Your task to perform on an android device: turn off priority inbox in the gmail app Image 0: 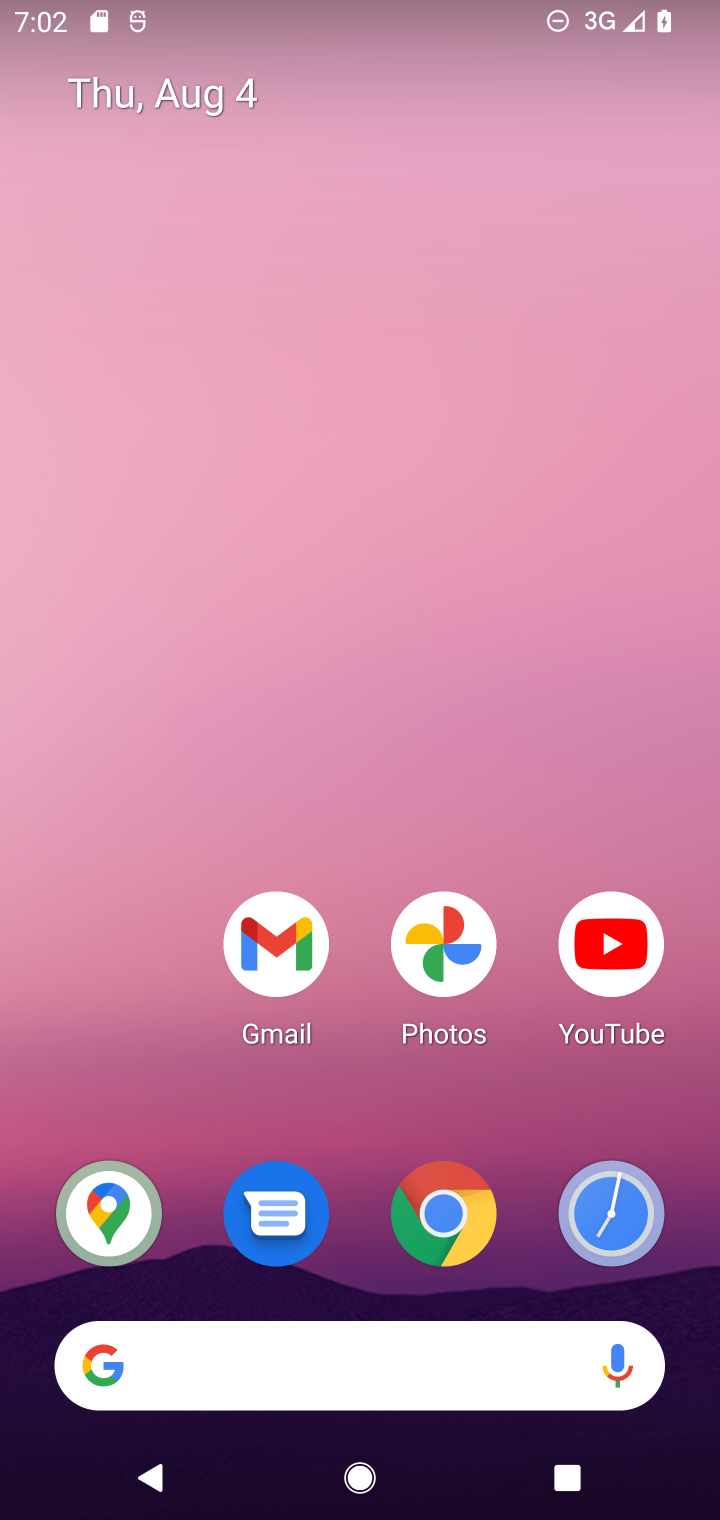
Step 0: press home button
Your task to perform on an android device: turn off priority inbox in the gmail app Image 1: 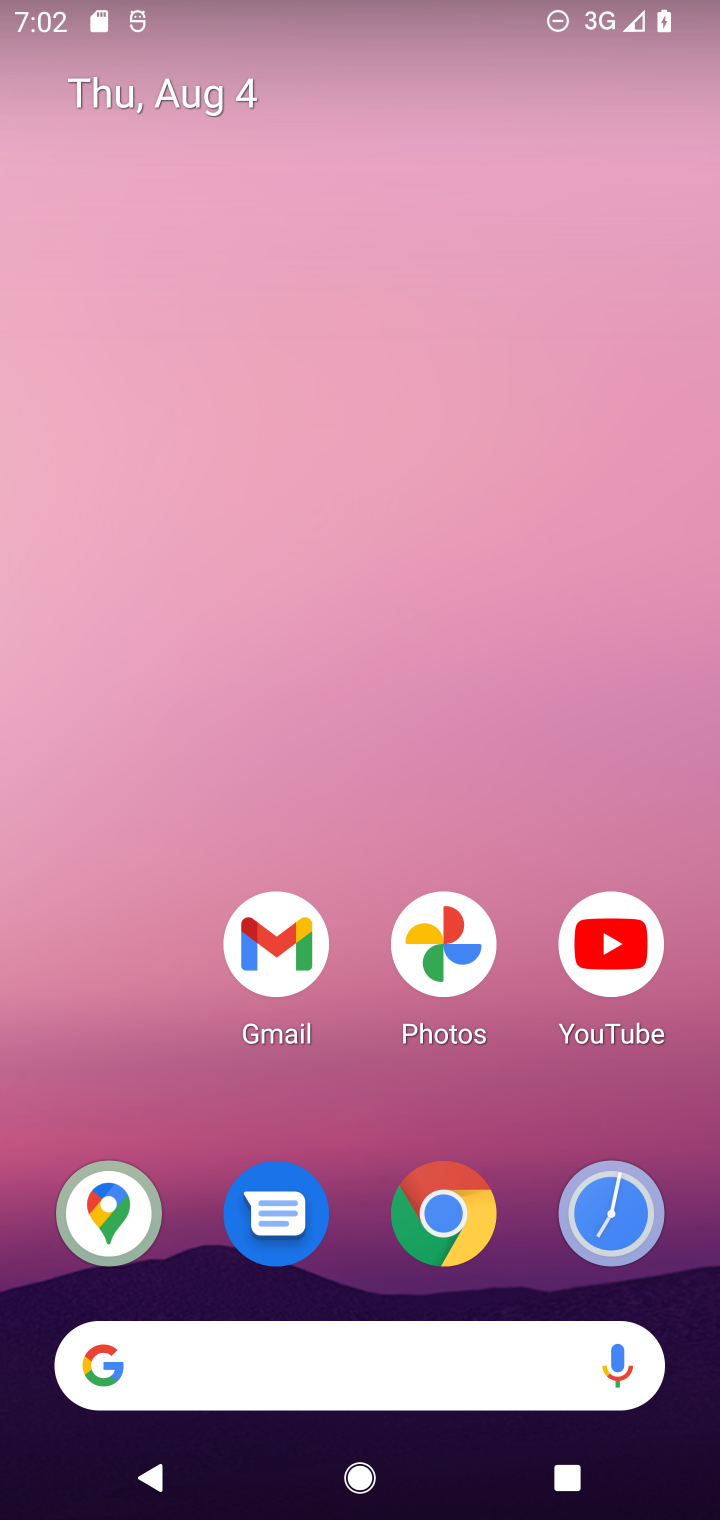
Step 1: drag from (164, 1124) to (177, 369)
Your task to perform on an android device: turn off priority inbox in the gmail app Image 2: 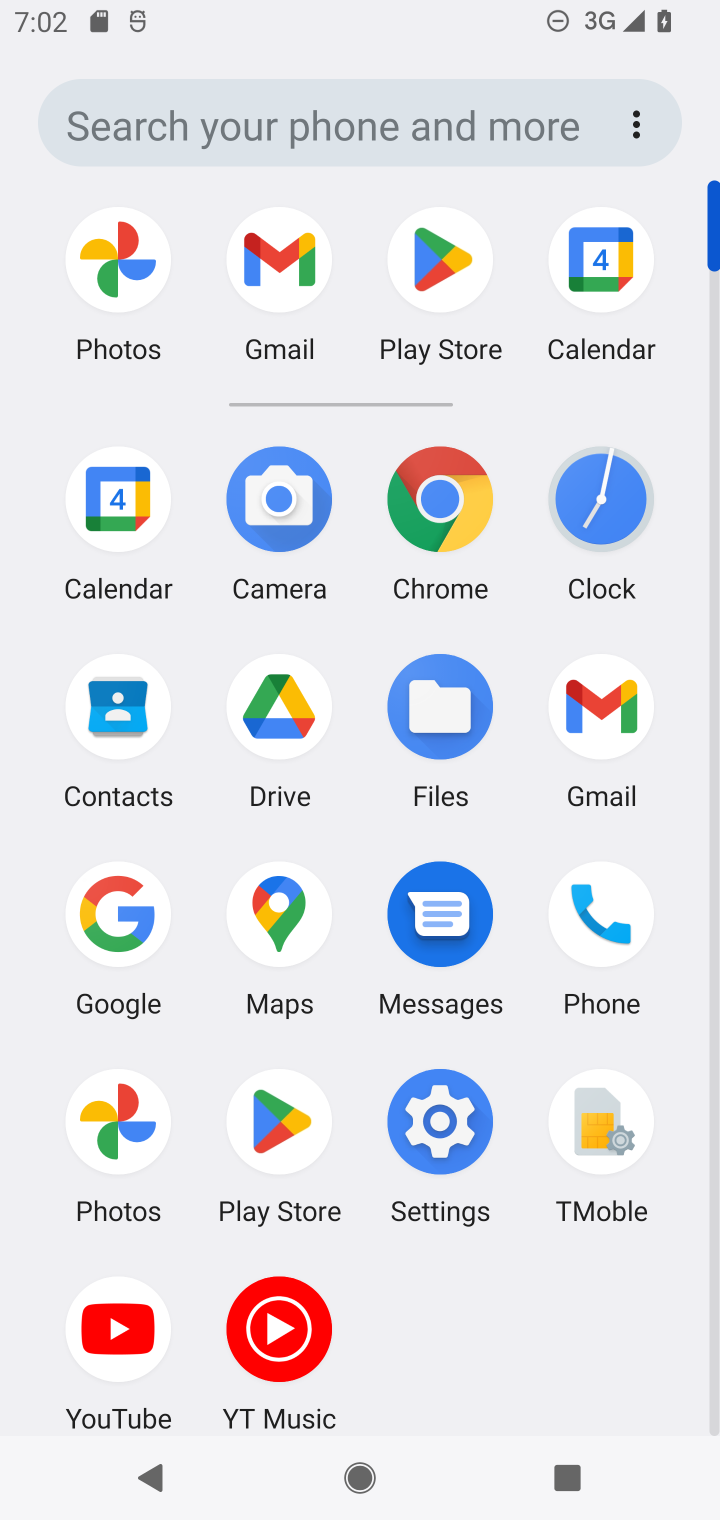
Step 2: click (626, 716)
Your task to perform on an android device: turn off priority inbox in the gmail app Image 3: 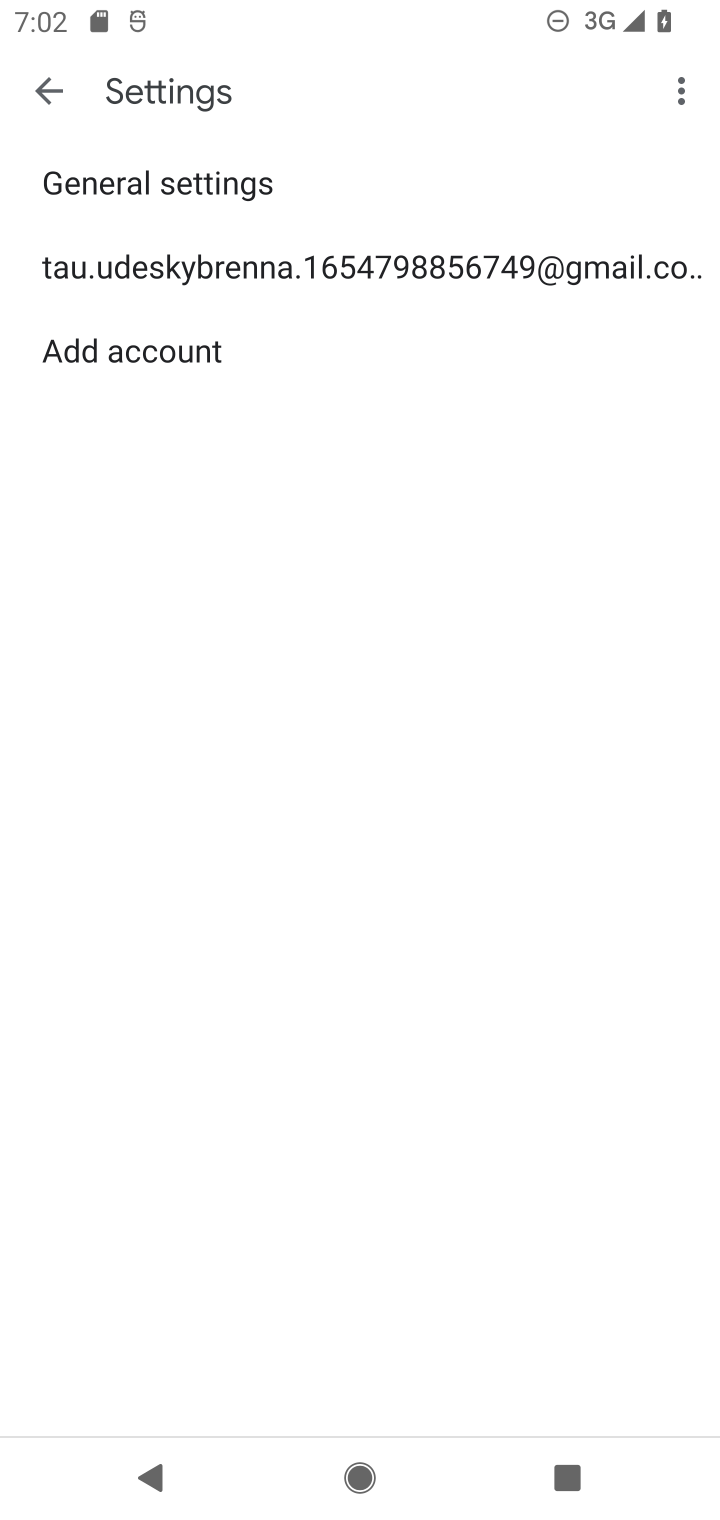
Step 3: click (469, 262)
Your task to perform on an android device: turn off priority inbox in the gmail app Image 4: 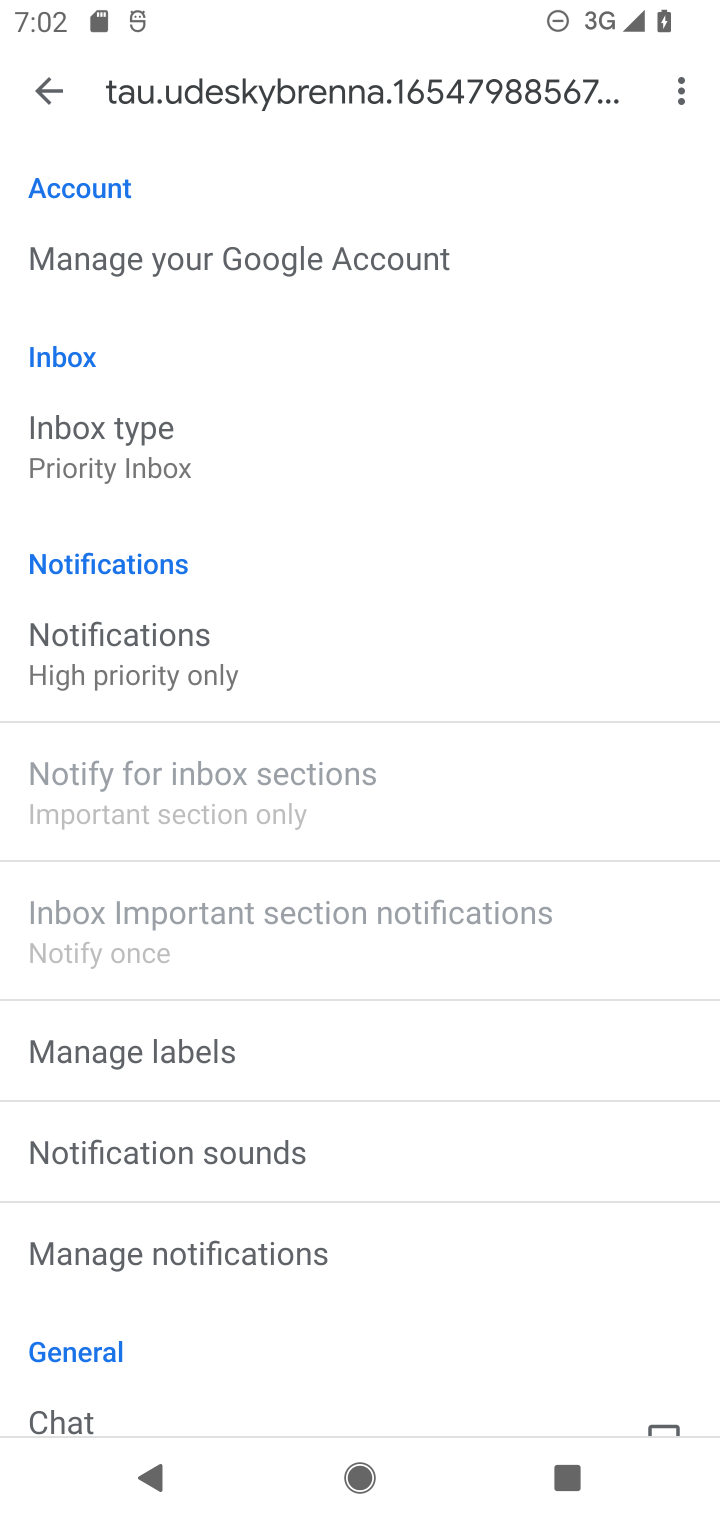
Step 4: drag from (570, 1053) to (561, 745)
Your task to perform on an android device: turn off priority inbox in the gmail app Image 5: 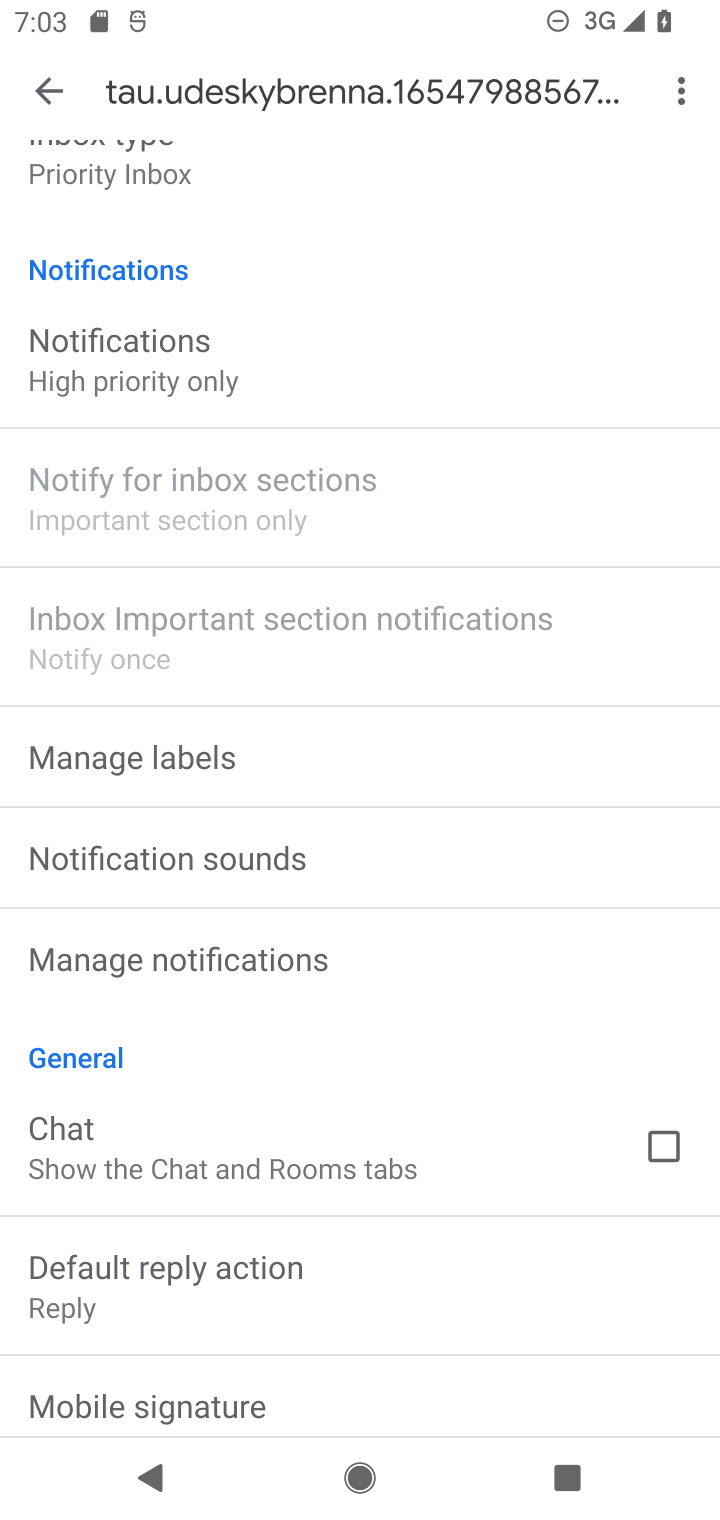
Step 5: drag from (515, 1104) to (509, 824)
Your task to perform on an android device: turn off priority inbox in the gmail app Image 6: 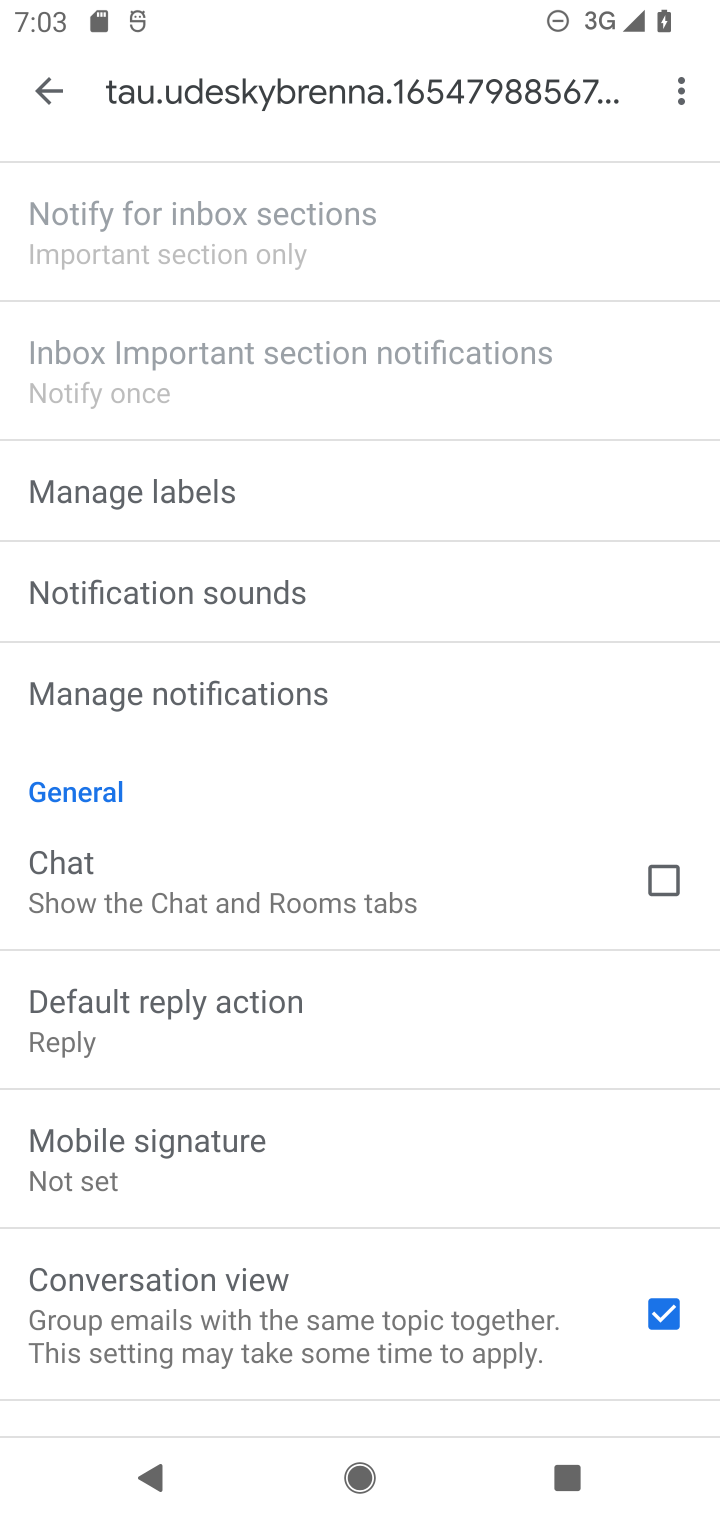
Step 6: drag from (485, 1149) to (501, 835)
Your task to perform on an android device: turn off priority inbox in the gmail app Image 7: 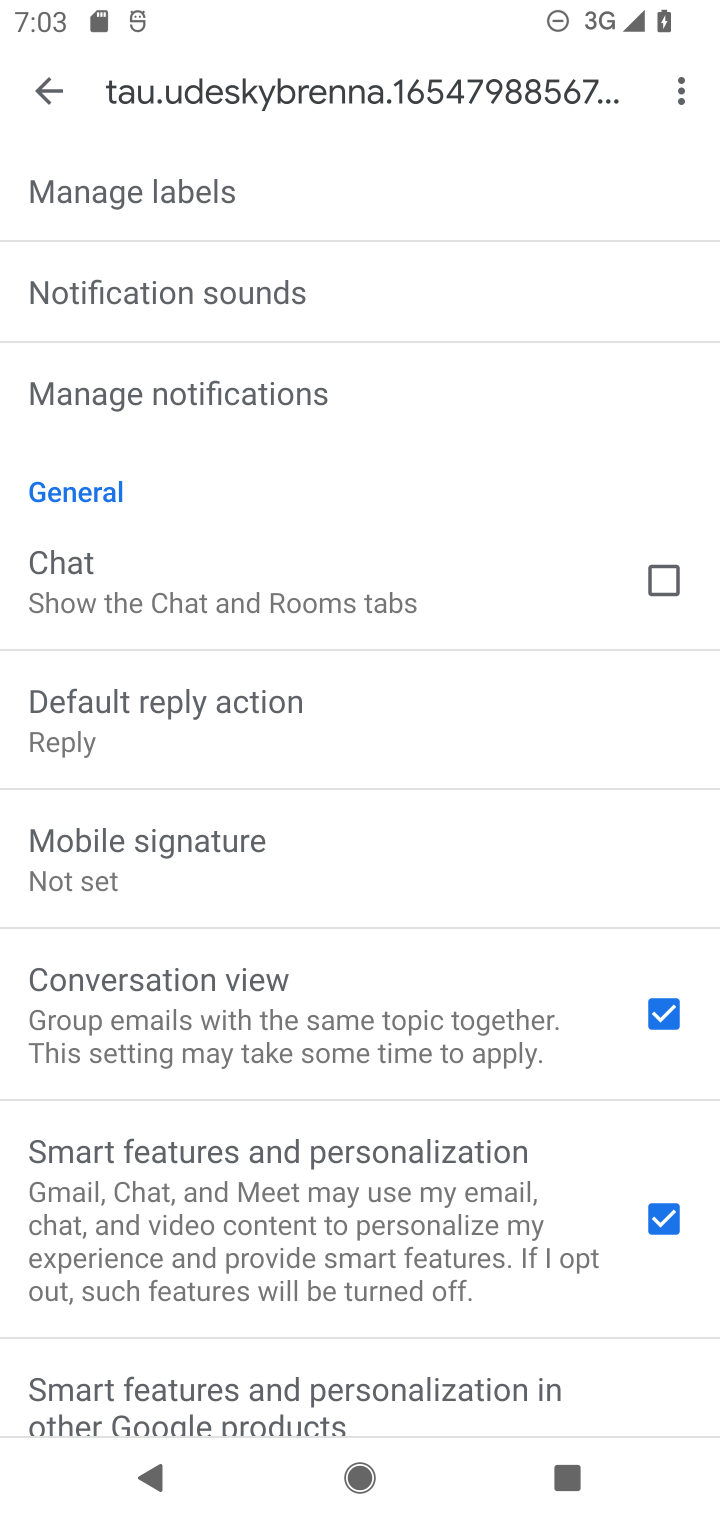
Step 7: drag from (484, 1163) to (481, 835)
Your task to perform on an android device: turn off priority inbox in the gmail app Image 8: 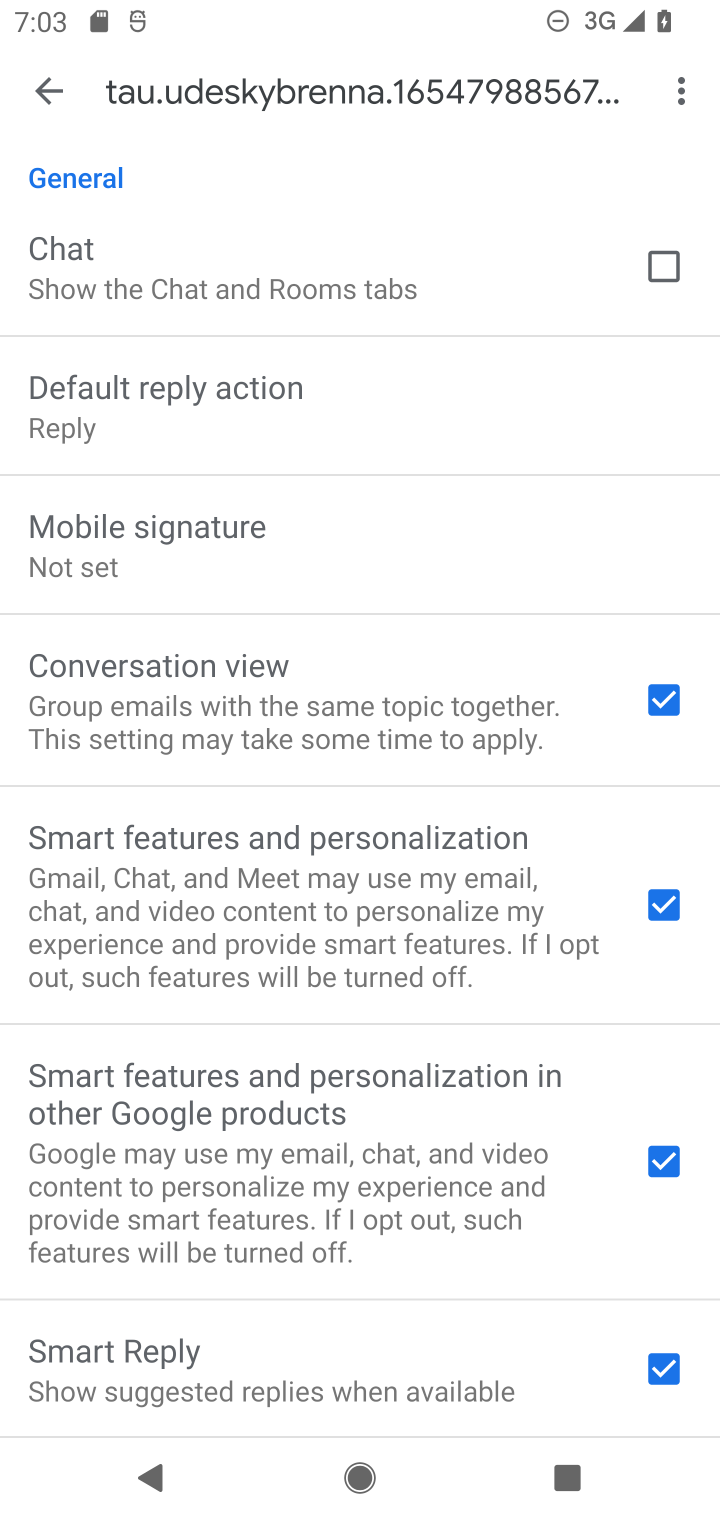
Step 8: drag from (470, 1231) to (474, 880)
Your task to perform on an android device: turn off priority inbox in the gmail app Image 9: 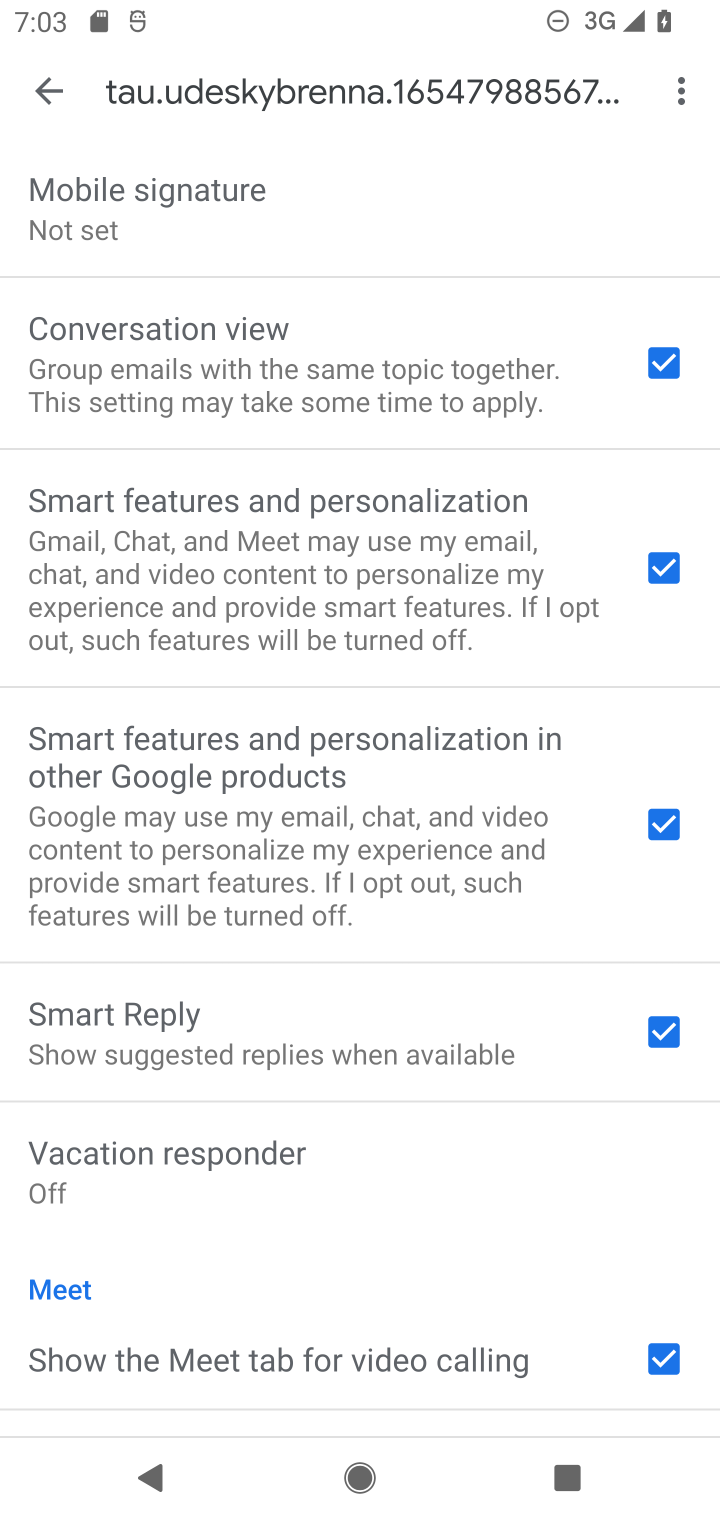
Step 9: drag from (489, 435) to (495, 711)
Your task to perform on an android device: turn off priority inbox in the gmail app Image 10: 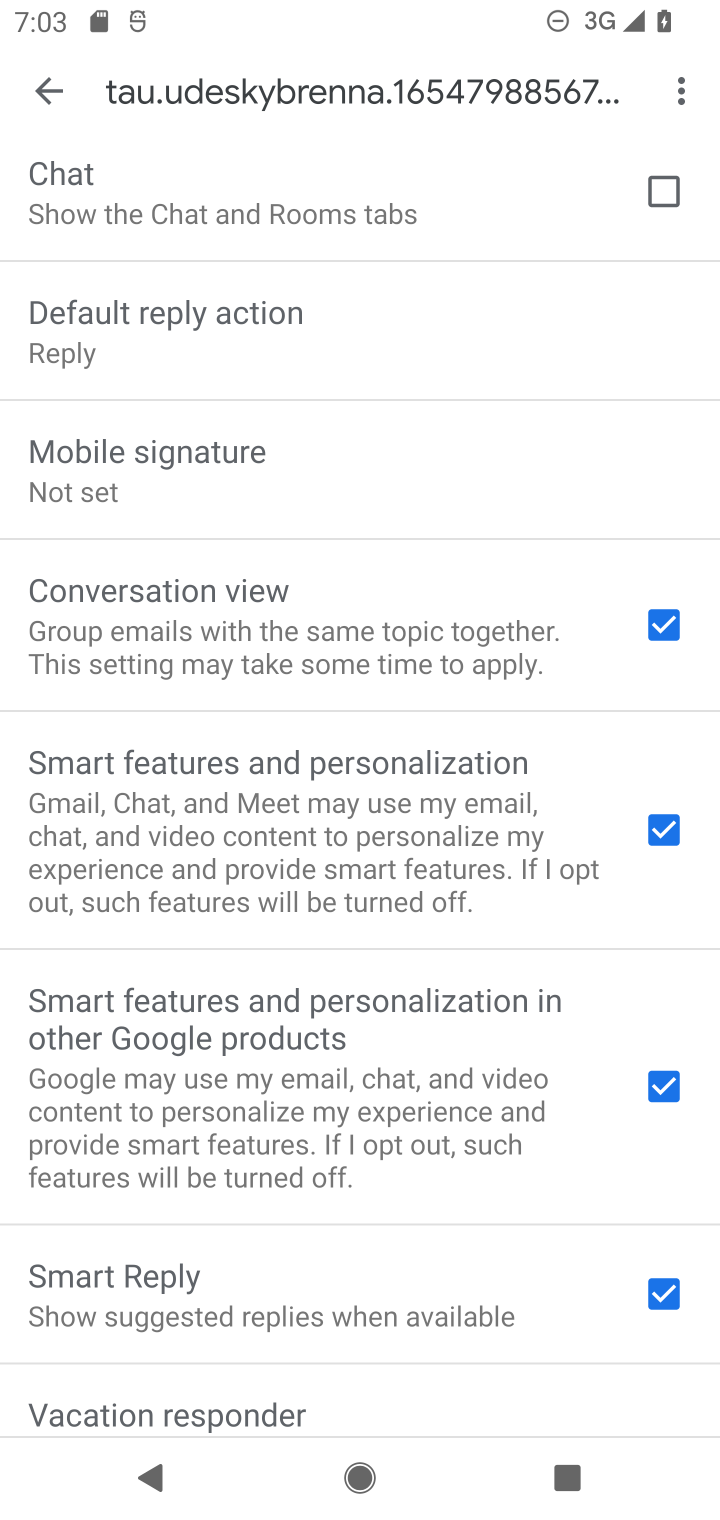
Step 10: drag from (493, 308) to (500, 615)
Your task to perform on an android device: turn off priority inbox in the gmail app Image 11: 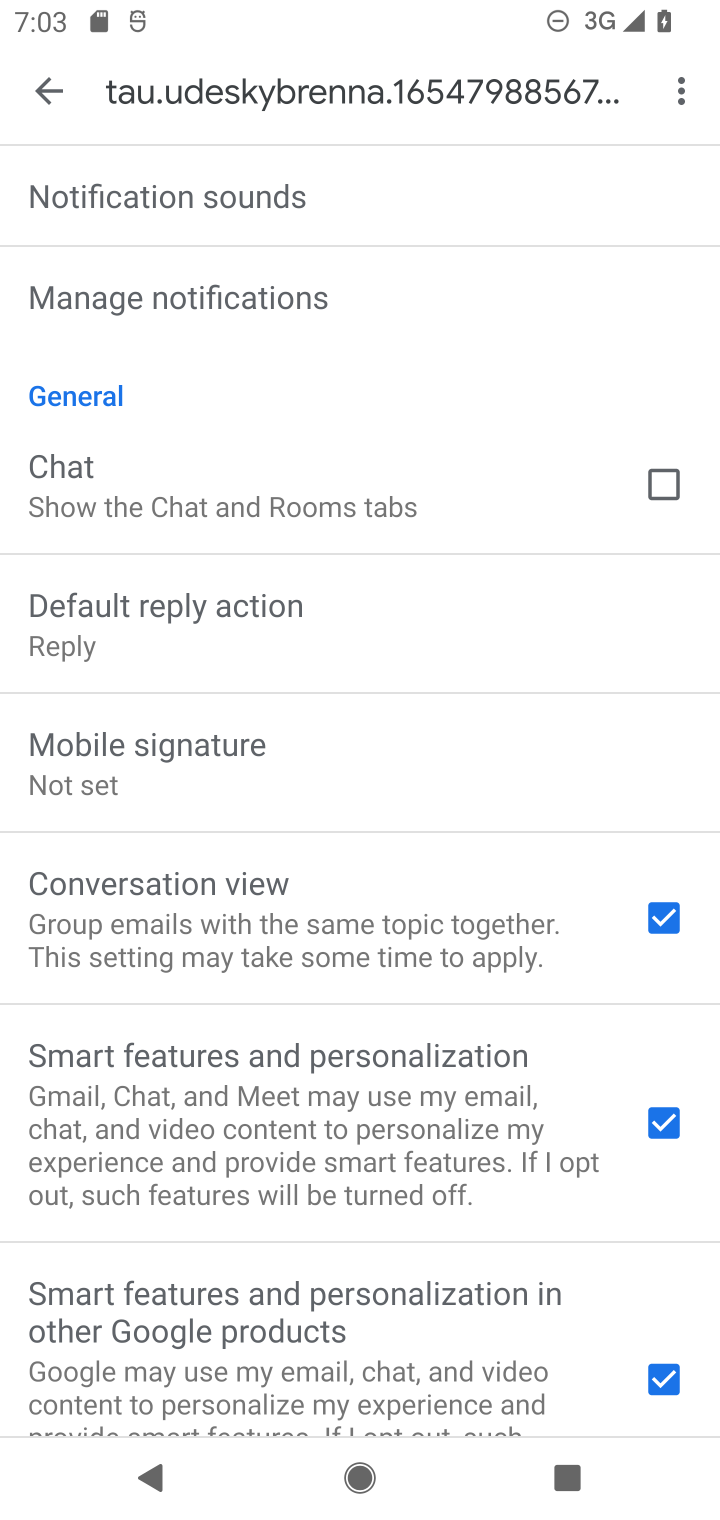
Step 11: drag from (523, 265) to (520, 656)
Your task to perform on an android device: turn off priority inbox in the gmail app Image 12: 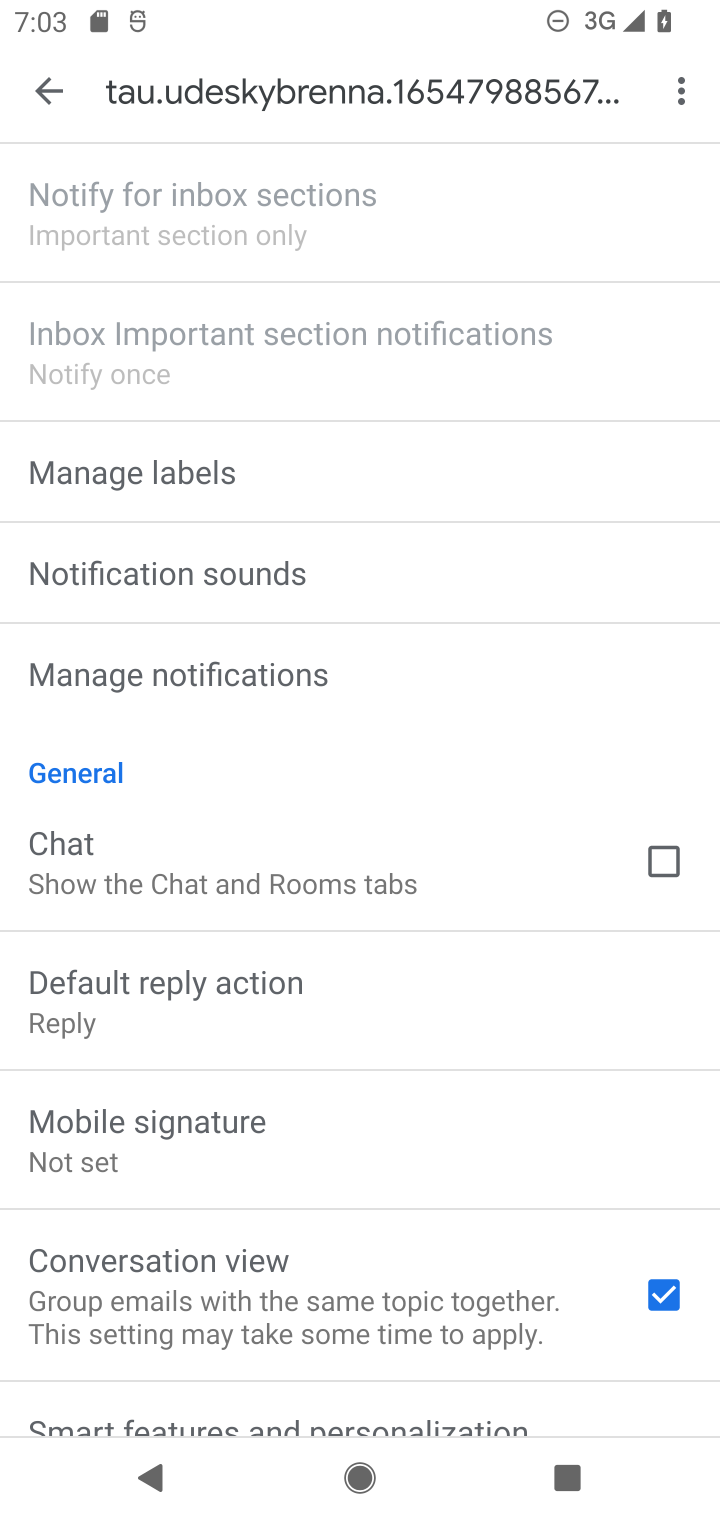
Step 12: drag from (507, 215) to (522, 727)
Your task to perform on an android device: turn off priority inbox in the gmail app Image 13: 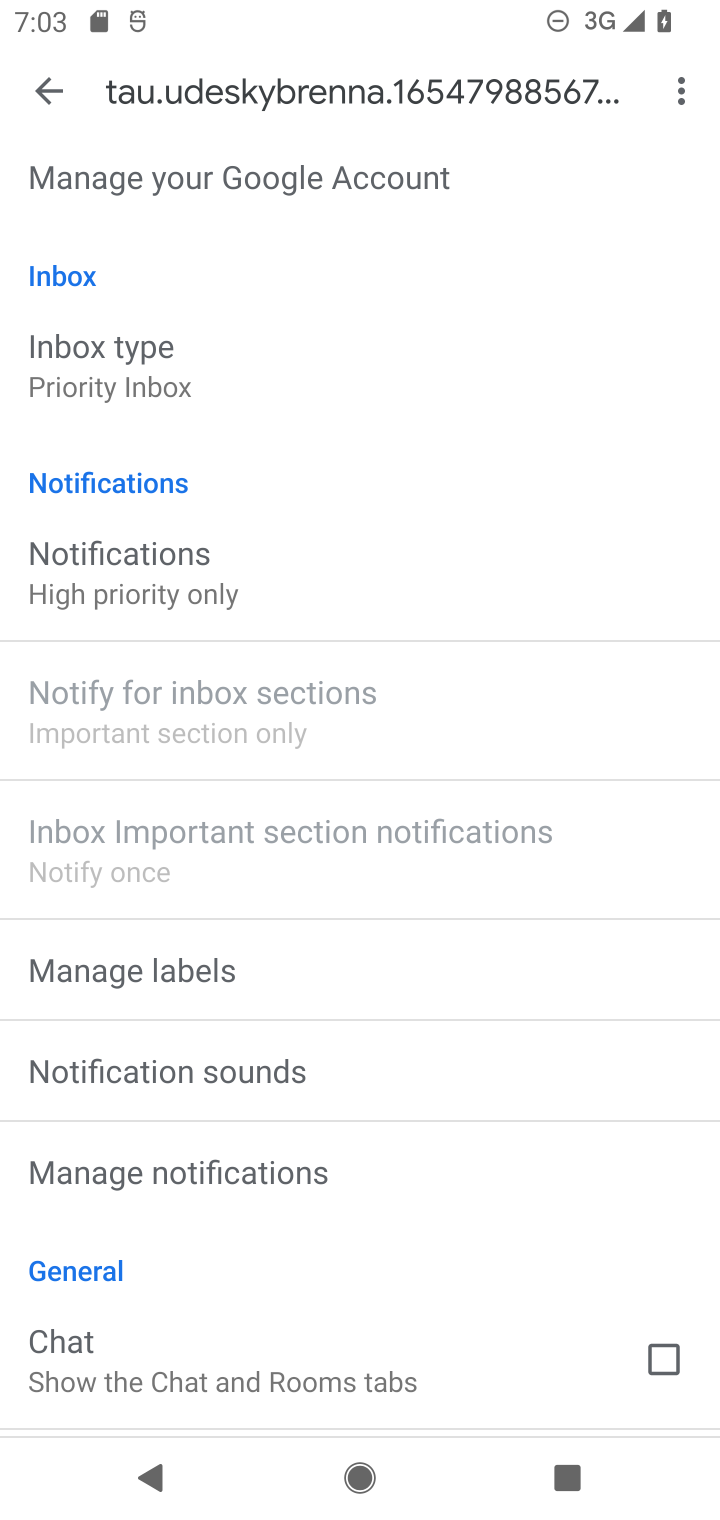
Step 13: drag from (372, 317) to (421, 744)
Your task to perform on an android device: turn off priority inbox in the gmail app Image 14: 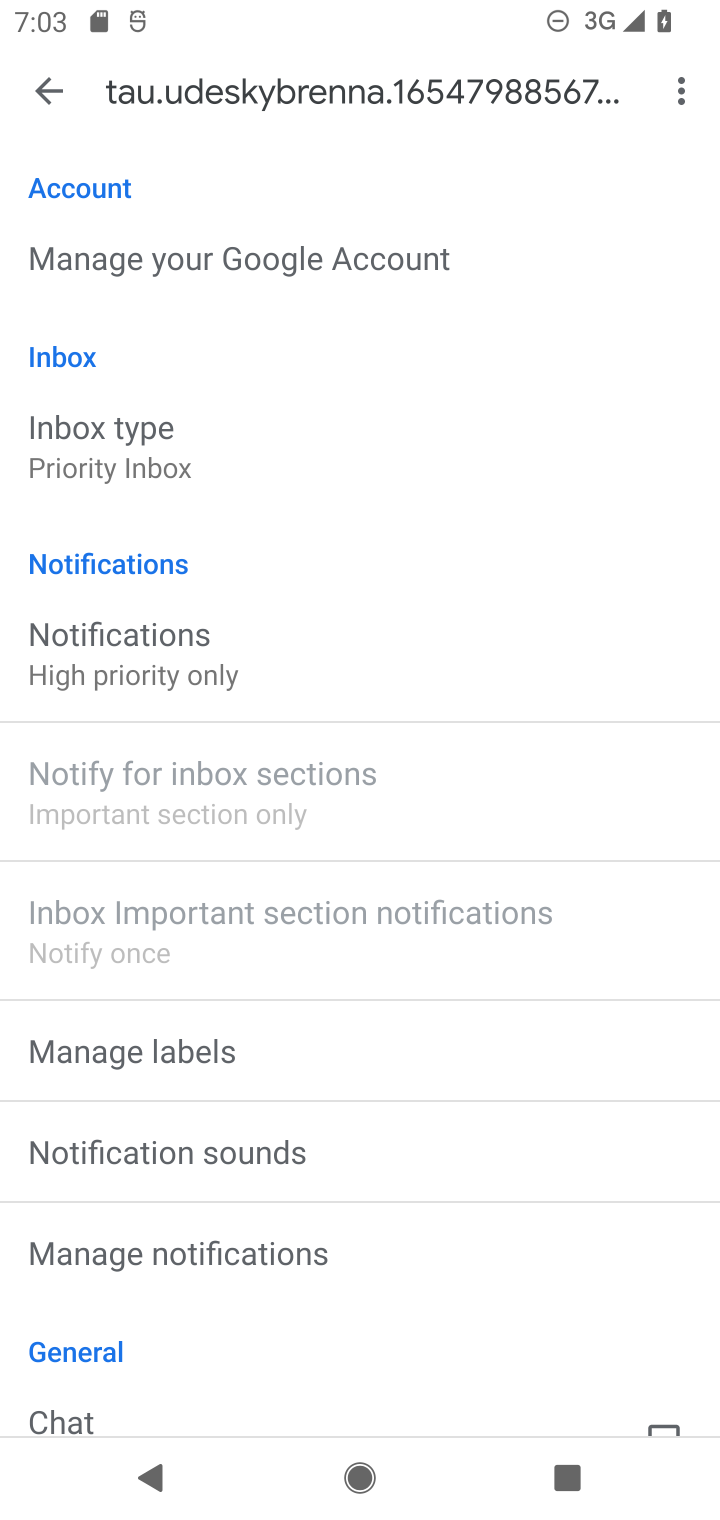
Step 14: click (157, 473)
Your task to perform on an android device: turn off priority inbox in the gmail app Image 15: 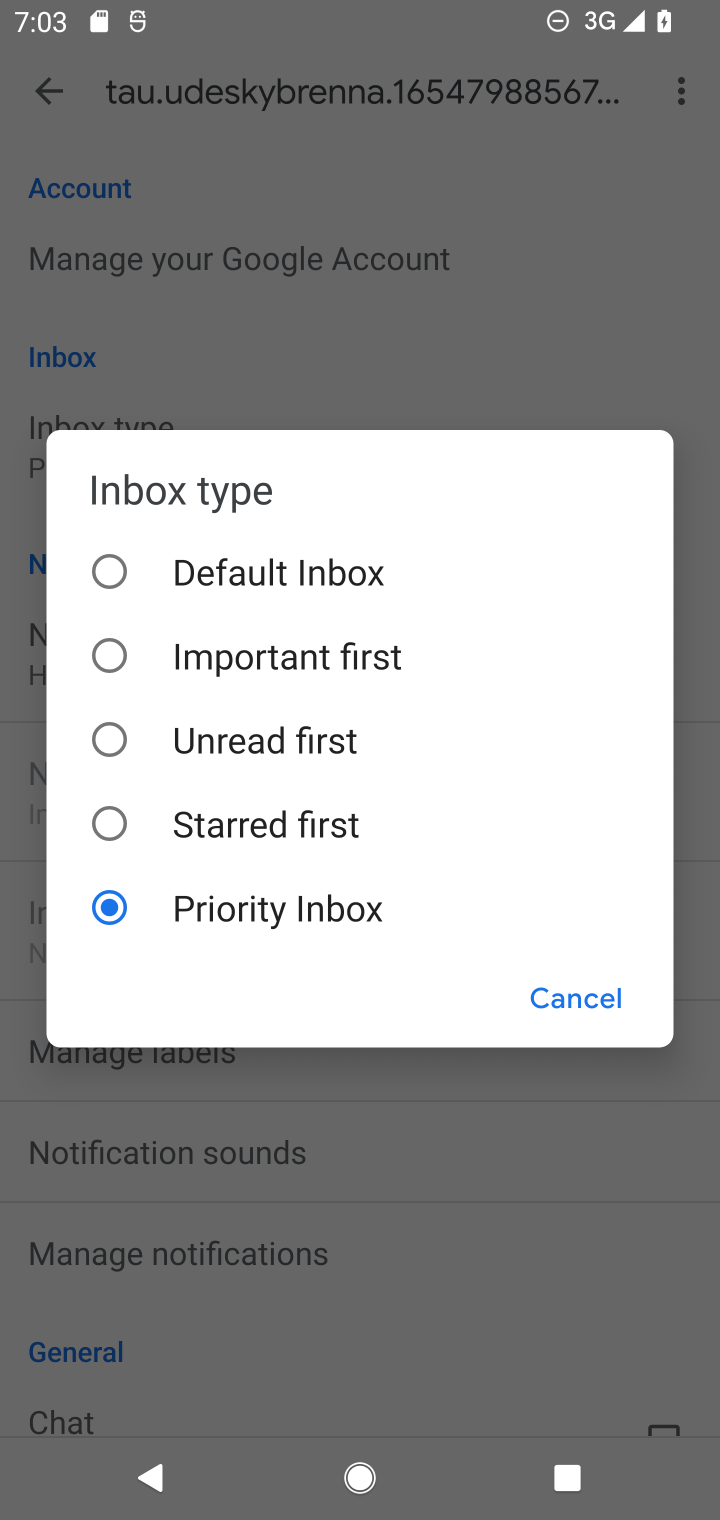
Step 15: click (293, 594)
Your task to perform on an android device: turn off priority inbox in the gmail app Image 16: 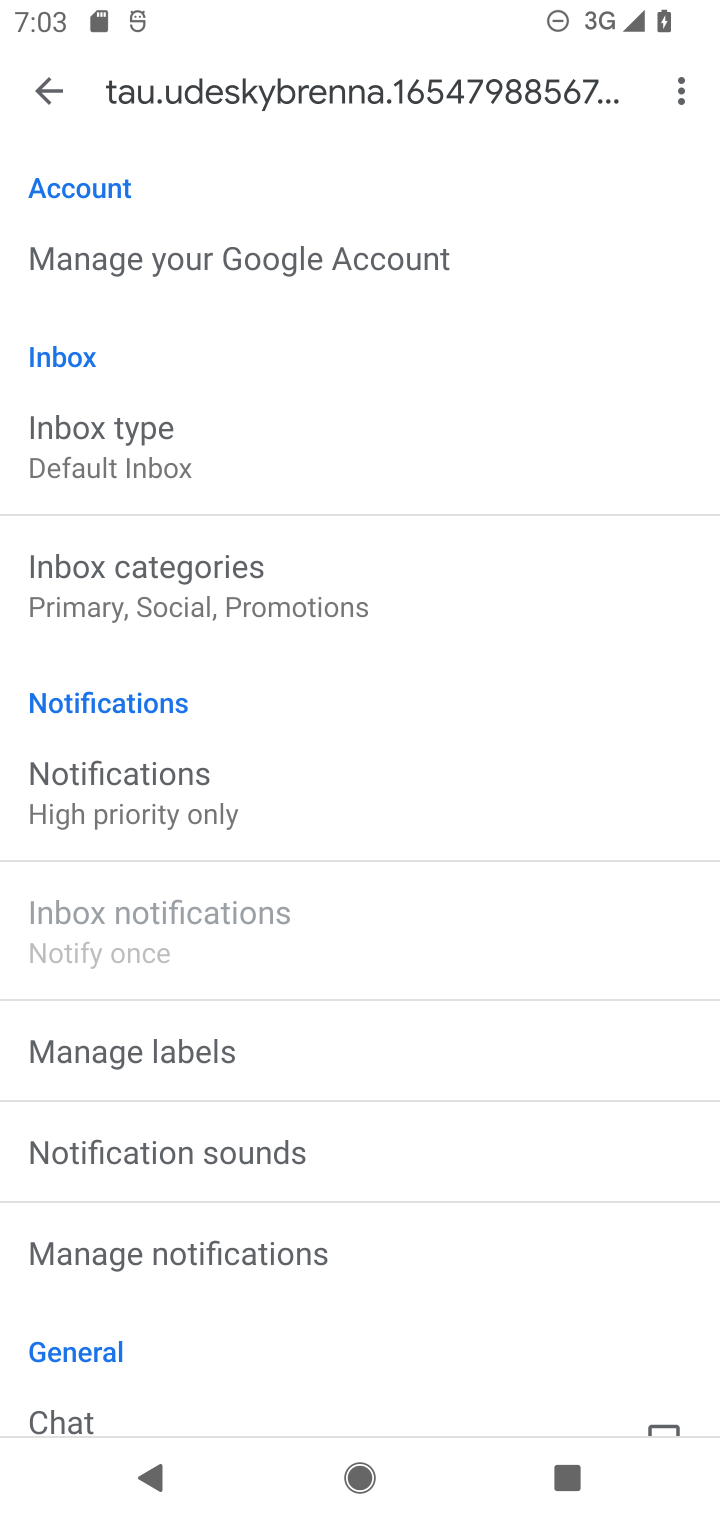
Step 16: task complete